Your task to perform on an android device: Go to calendar. Show me events next week Image 0: 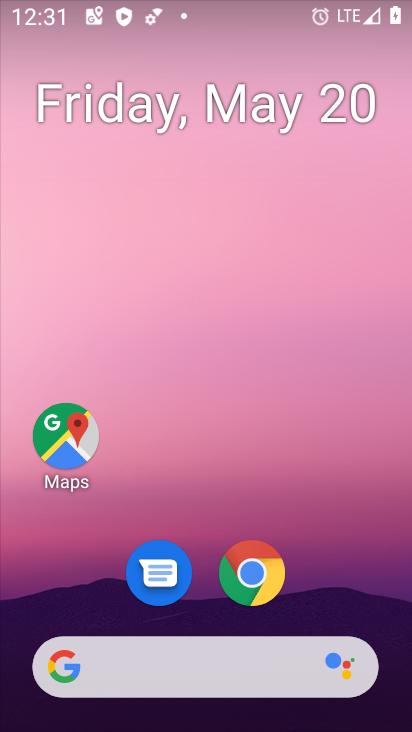
Step 0: drag from (336, 586) to (359, 82)
Your task to perform on an android device: Go to calendar. Show me events next week Image 1: 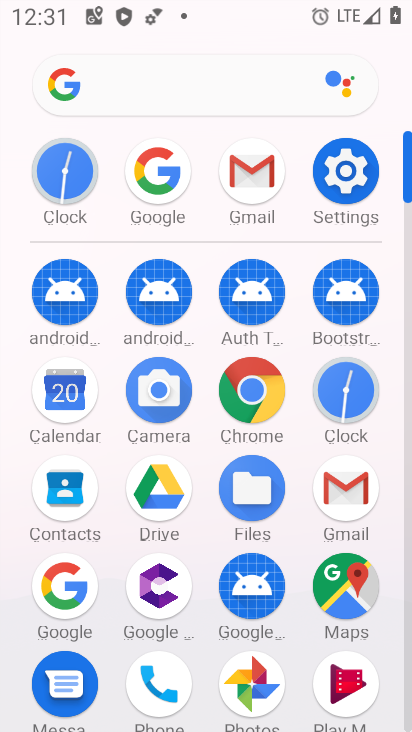
Step 1: click (67, 400)
Your task to perform on an android device: Go to calendar. Show me events next week Image 2: 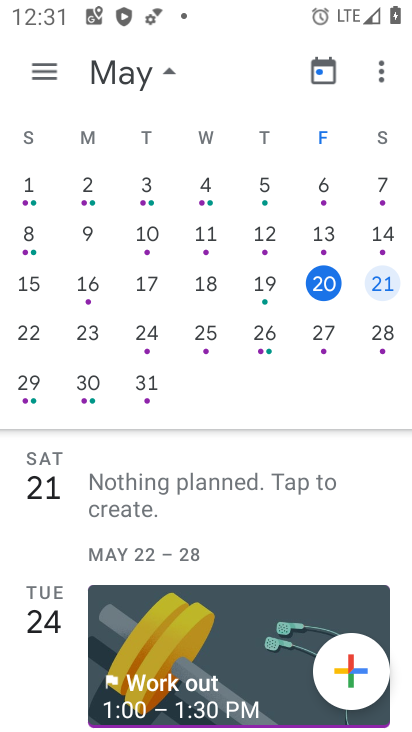
Step 2: click (189, 336)
Your task to perform on an android device: Go to calendar. Show me events next week Image 3: 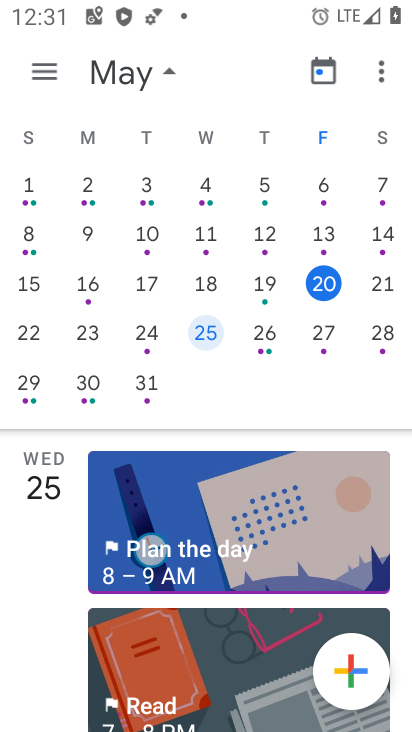
Step 3: task complete